Your task to perform on an android device: check the backup settings in the google photos Image 0: 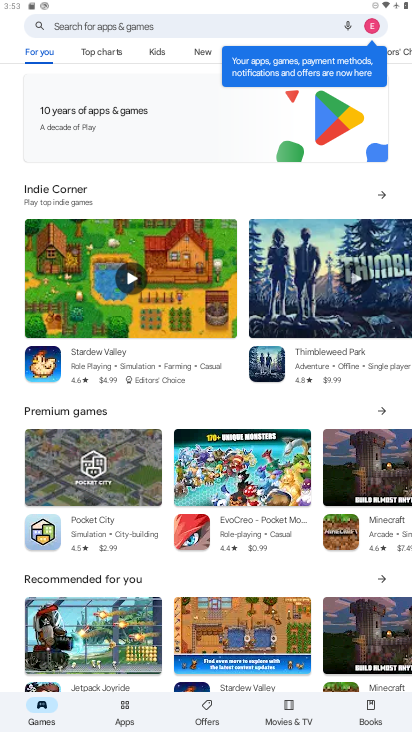
Step 0: press home button
Your task to perform on an android device: check the backup settings in the google photos Image 1: 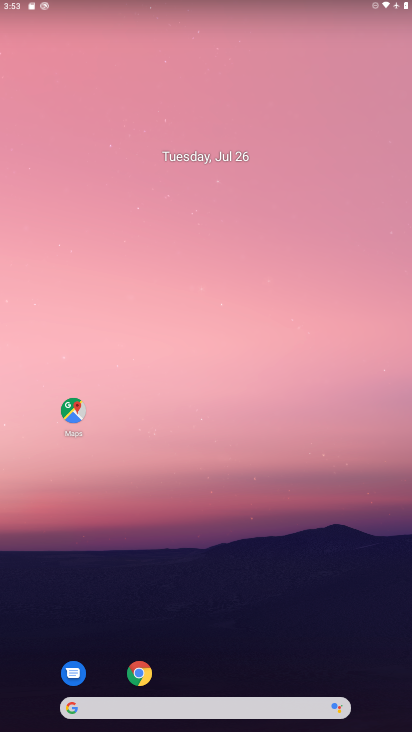
Step 1: drag from (226, 662) to (227, 0)
Your task to perform on an android device: check the backup settings in the google photos Image 2: 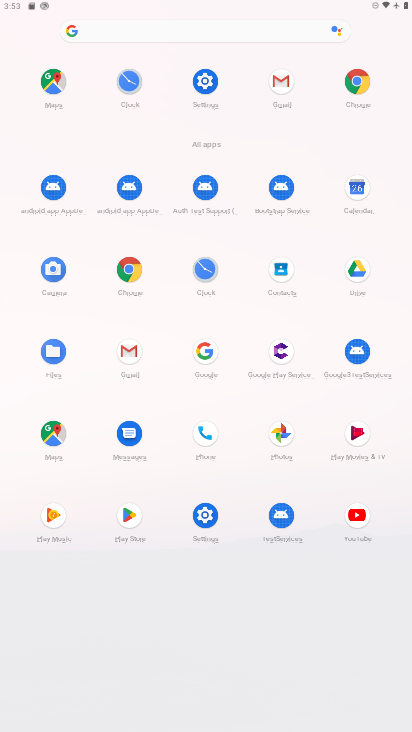
Step 2: click (291, 432)
Your task to perform on an android device: check the backup settings in the google photos Image 3: 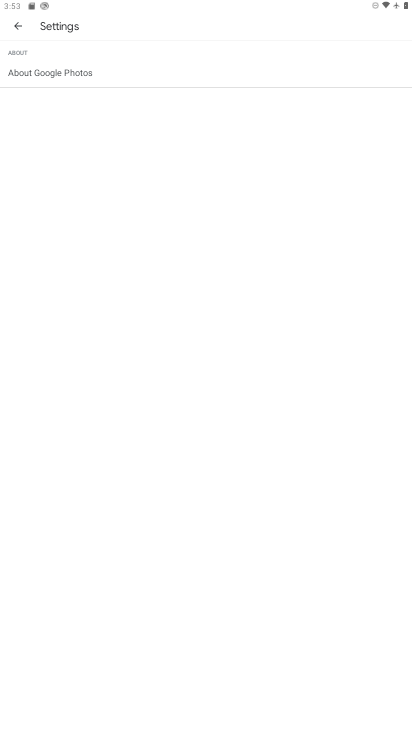
Step 3: click (18, 28)
Your task to perform on an android device: check the backup settings in the google photos Image 4: 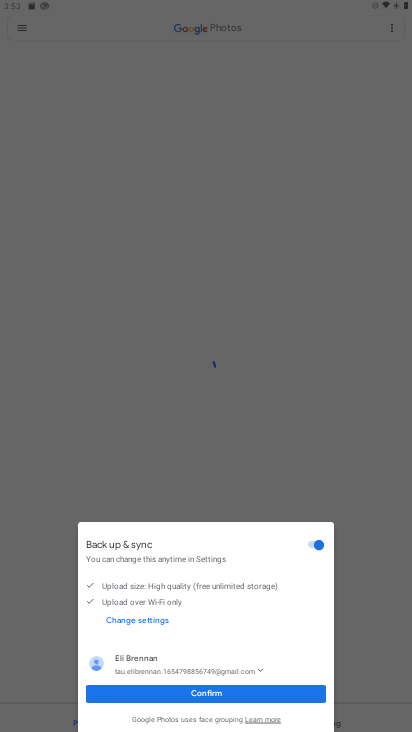
Step 4: click (202, 701)
Your task to perform on an android device: check the backup settings in the google photos Image 5: 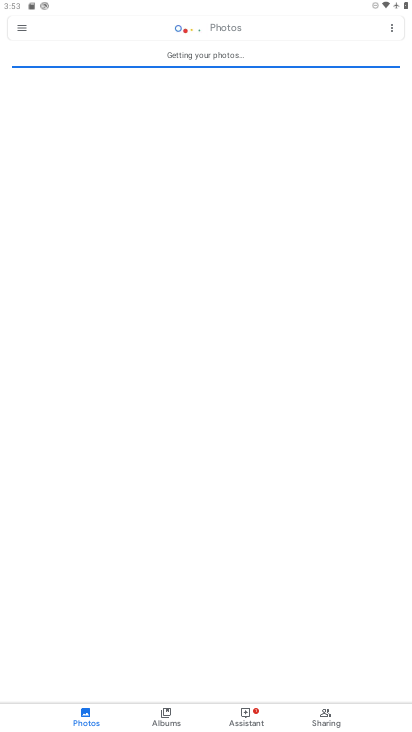
Step 5: click (23, 24)
Your task to perform on an android device: check the backup settings in the google photos Image 6: 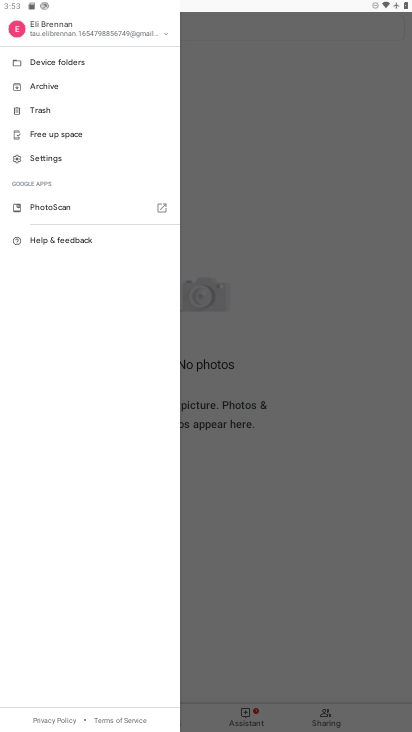
Step 6: click (36, 160)
Your task to perform on an android device: check the backup settings in the google photos Image 7: 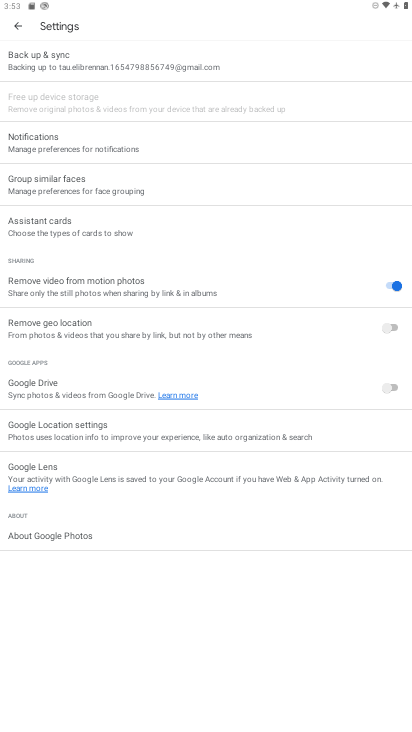
Step 7: click (113, 68)
Your task to perform on an android device: check the backup settings in the google photos Image 8: 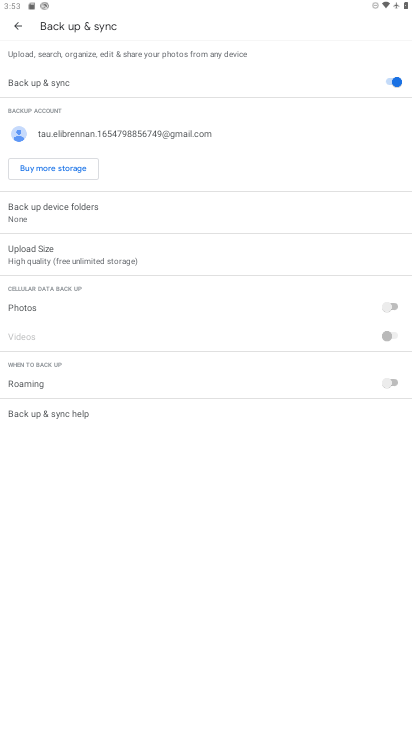
Step 8: task complete